Your task to perform on an android device: Show me popular videos on Youtube Image 0: 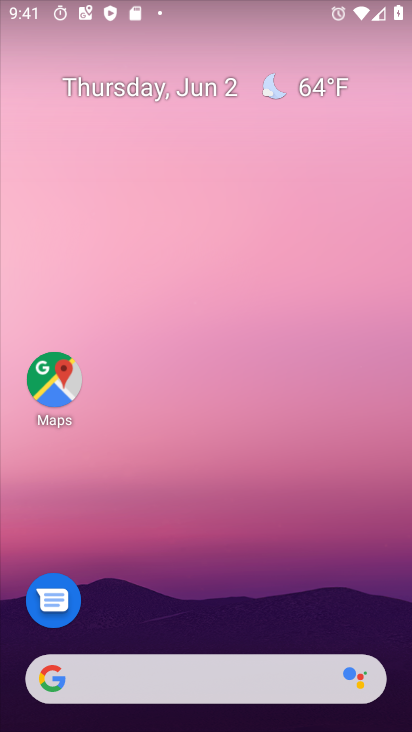
Step 0: drag from (226, 596) to (213, 70)
Your task to perform on an android device: Show me popular videos on Youtube Image 1: 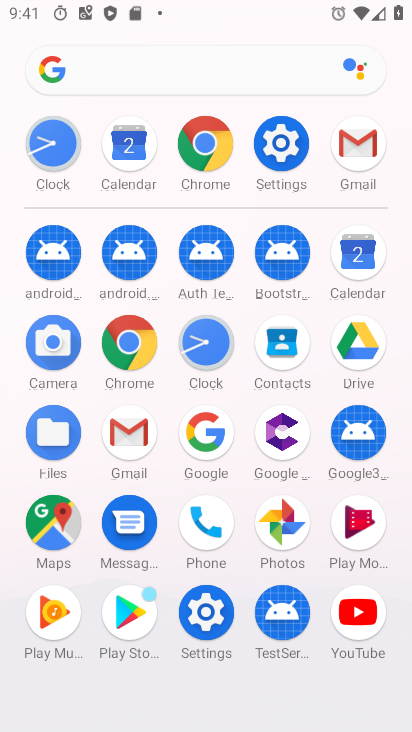
Step 1: click (356, 618)
Your task to perform on an android device: Show me popular videos on Youtube Image 2: 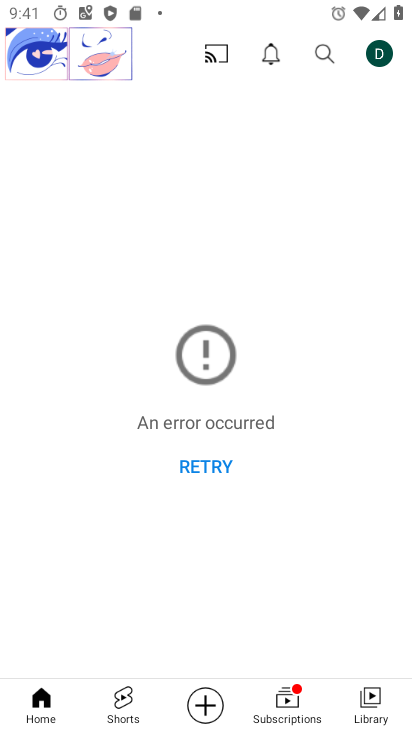
Step 2: click (41, 711)
Your task to perform on an android device: Show me popular videos on Youtube Image 3: 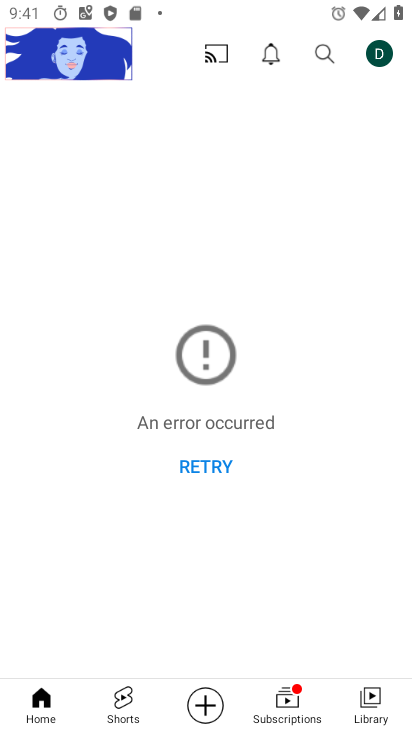
Step 3: click (204, 457)
Your task to perform on an android device: Show me popular videos on Youtube Image 4: 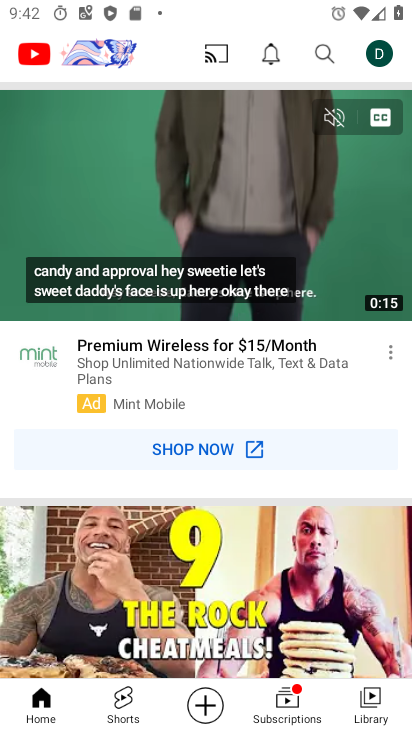
Step 4: task complete